Your task to perform on an android device: toggle location history Image 0: 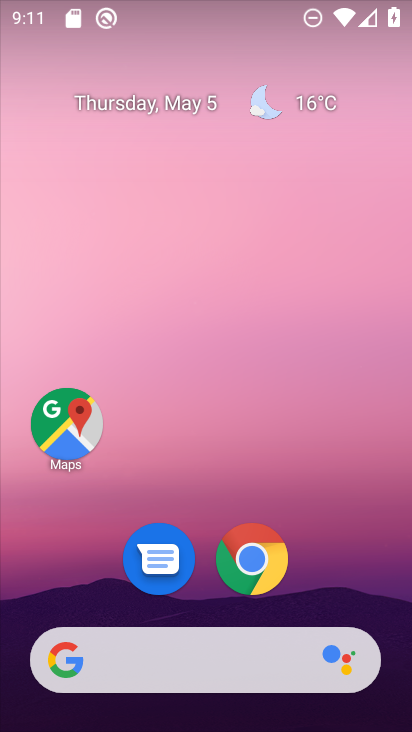
Step 0: click (62, 432)
Your task to perform on an android device: toggle location history Image 1: 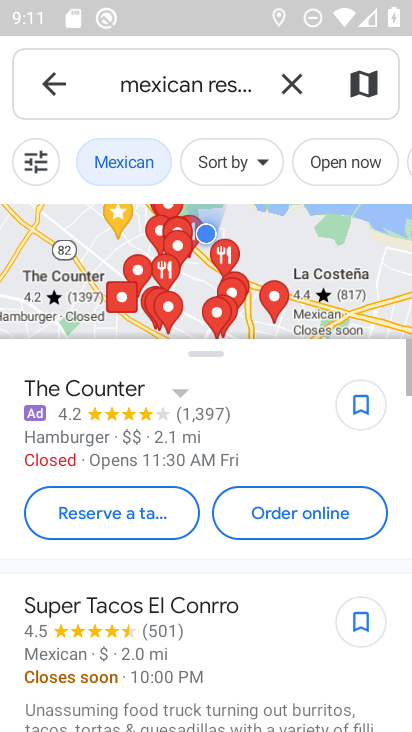
Step 1: click (285, 89)
Your task to perform on an android device: toggle location history Image 2: 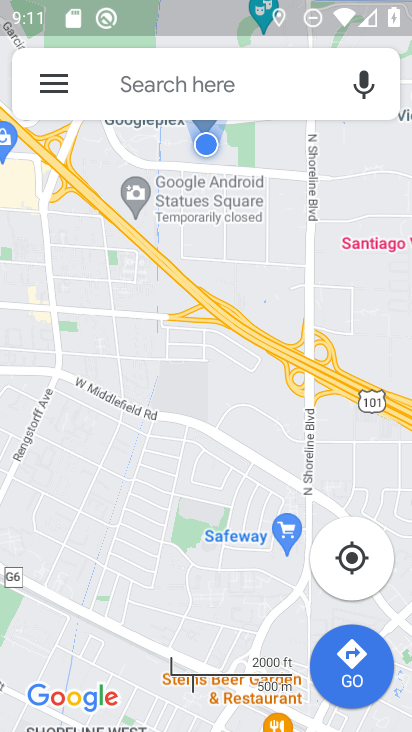
Step 2: click (62, 83)
Your task to perform on an android device: toggle location history Image 3: 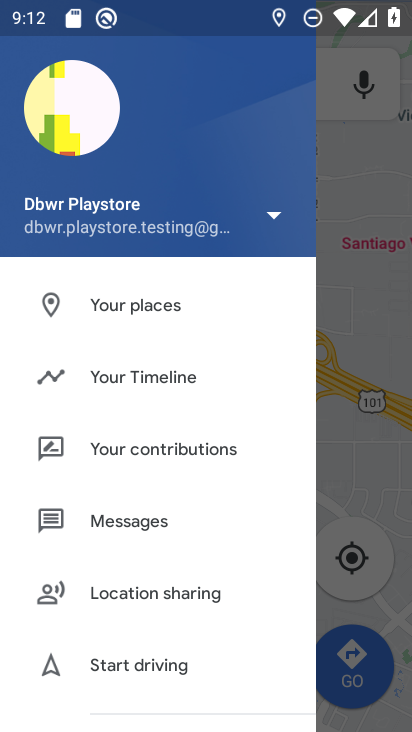
Step 3: click (136, 385)
Your task to perform on an android device: toggle location history Image 4: 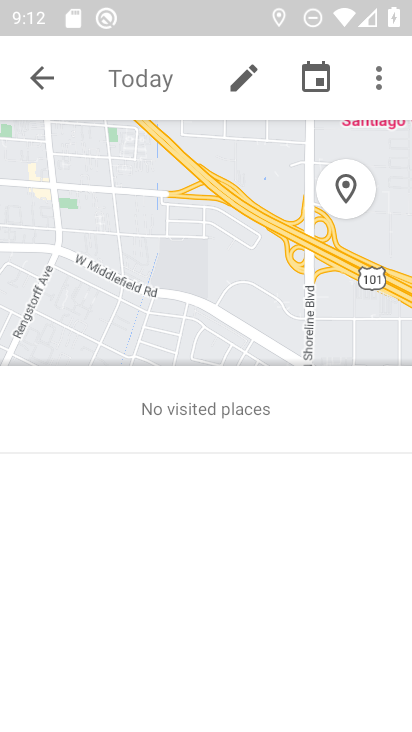
Step 4: click (377, 81)
Your task to perform on an android device: toggle location history Image 5: 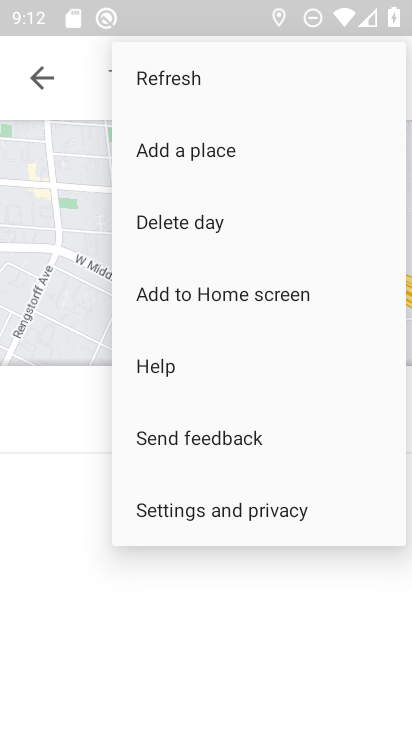
Step 5: click (183, 516)
Your task to perform on an android device: toggle location history Image 6: 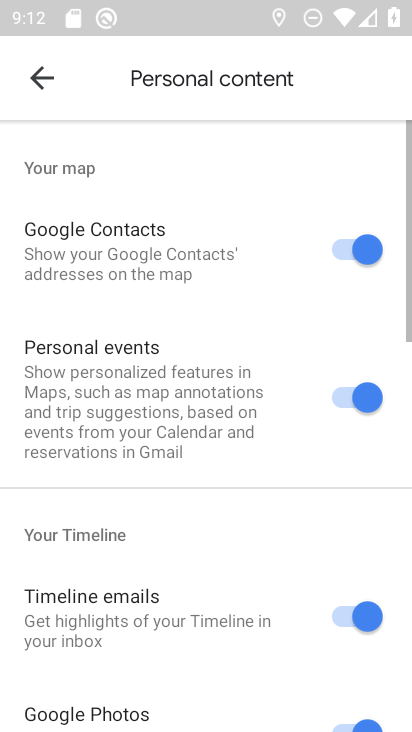
Step 6: drag from (177, 582) to (175, 148)
Your task to perform on an android device: toggle location history Image 7: 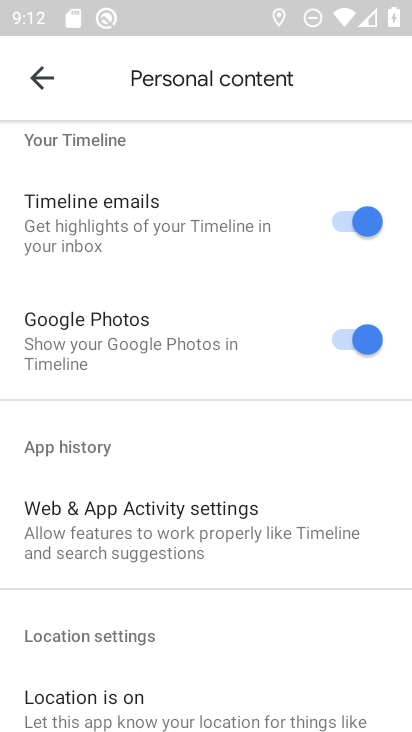
Step 7: drag from (200, 605) to (159, 139)
Your task to perform on an android device: toggle location history Image 8: 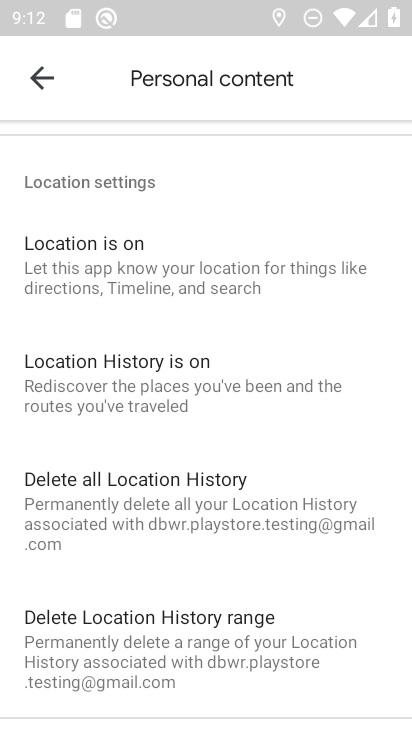
Step 8: click (123, 398)
Your task to perform on an android device: toggle location history Image 9: 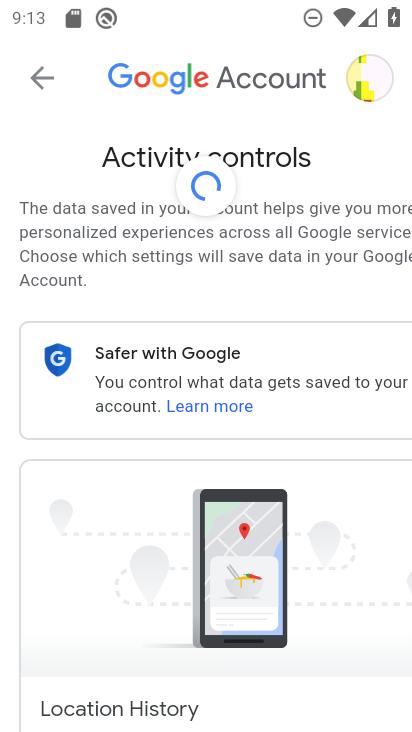
Step 9: drag from (305, 573) to (269, 156)
Your task to perform on an android device: toggle location history Image 10: 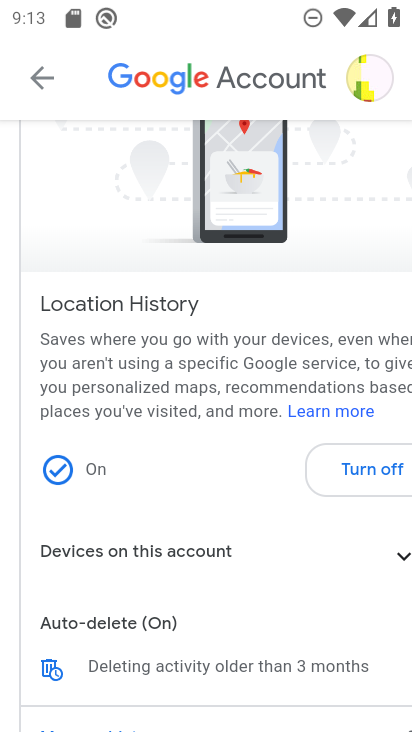
Step 10: click (373, 473)
Your task to perform on an android device: toggle location history Image 11: 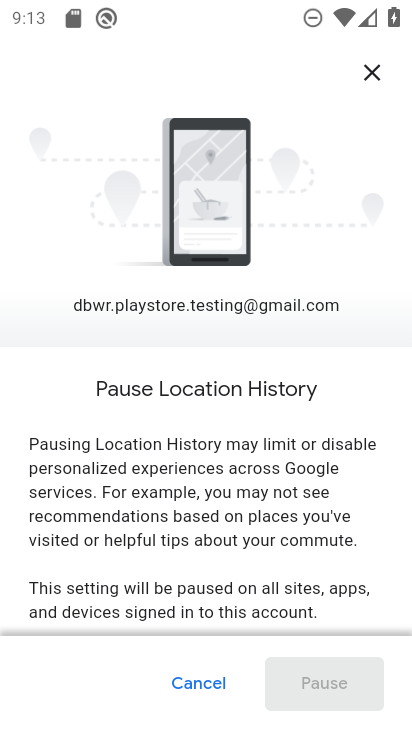
Step 11: drag from (252, 556) to (241, 60)
Your task to perform on an android device: toggle location history Image 12: 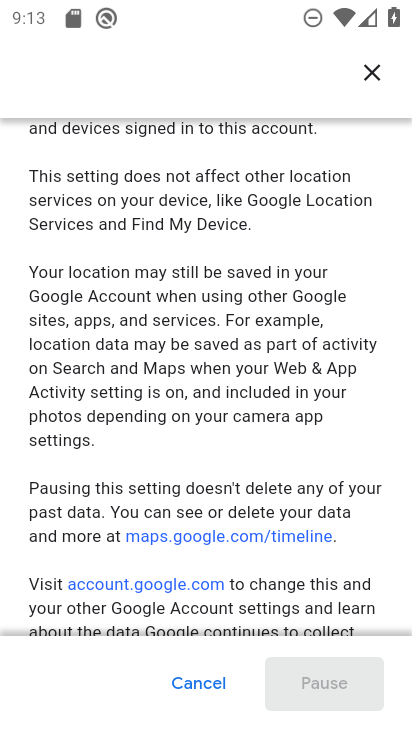
Step 12: drag from (221, 499) to (198, 104)
Your task to perform on an android device: toggle location history Image 13: 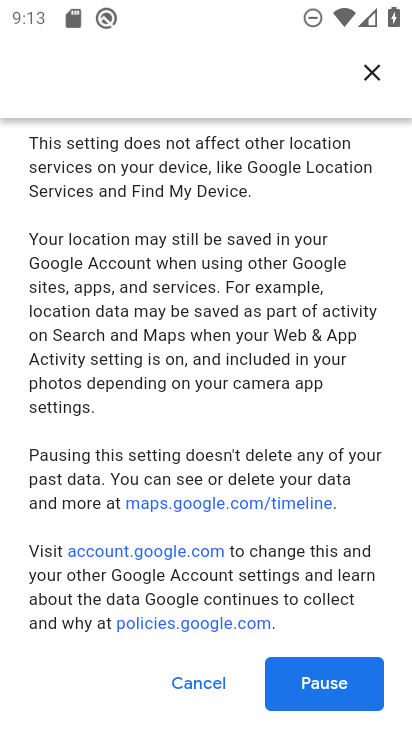
Step 13: click (334, 688)
Your task to perform on an android device: toggle location history Image 14: 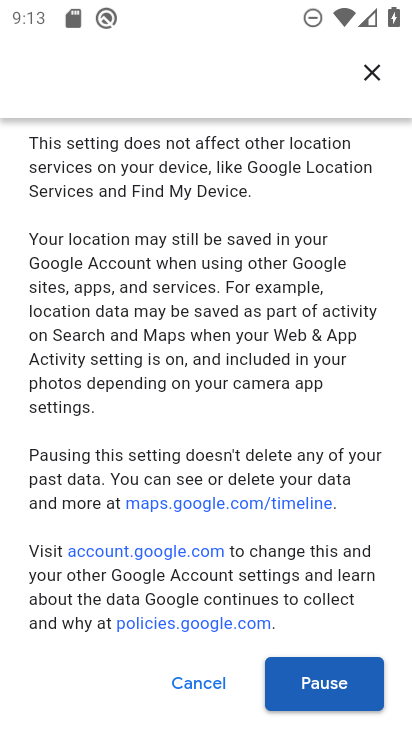
Step 14: click (323, 686)
Your task to perform on an android device: toggle location history Image 15: 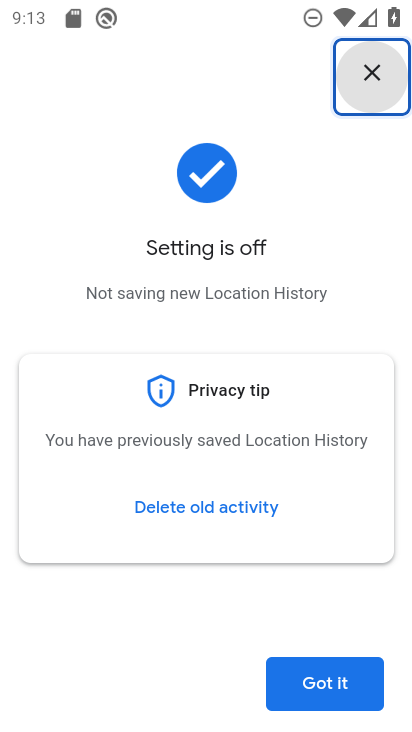
Step 15: click (315, 681)
Your task to perform on an android device: toggle location history Image 16: 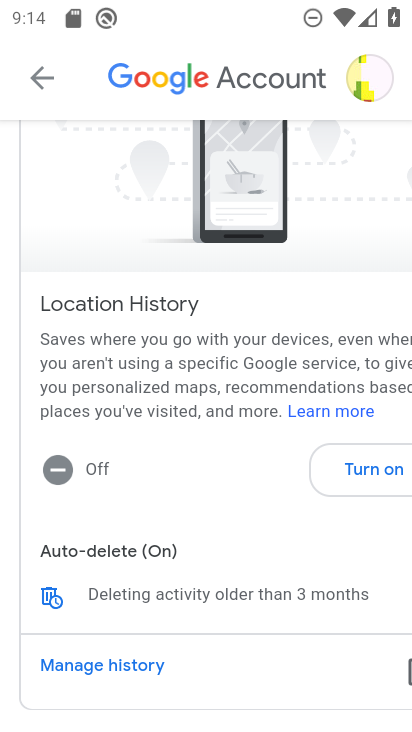
Step 16: task complete